Your task to perform on an android device: Open Yahoo.com Image 0: 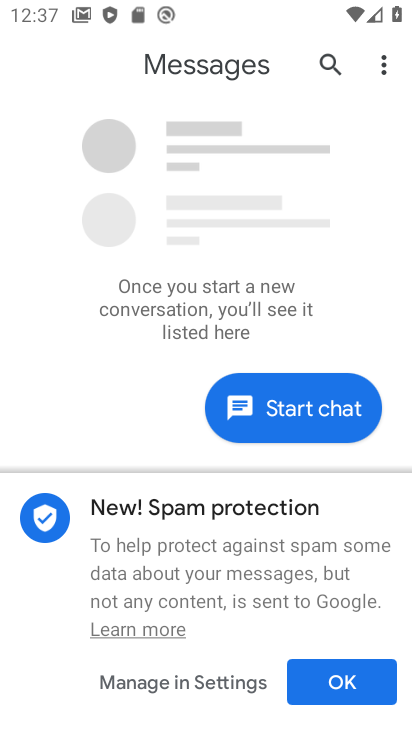
Step 0: press home button
Your task to perform on an android device: Open Yahoo.com Image 1: 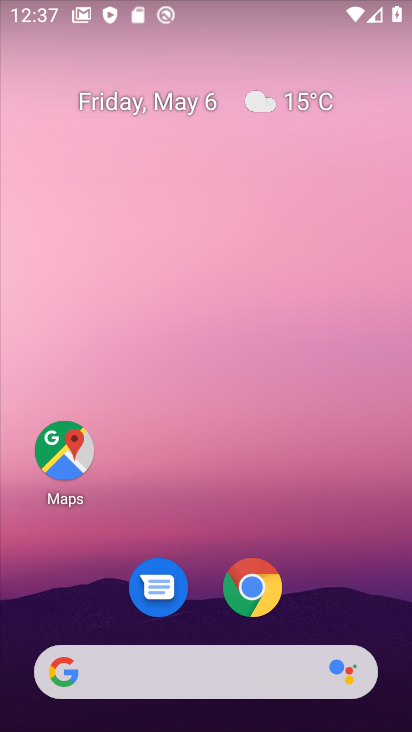
Step 1: click (245, 586)
Your task to perform on an android device: Open Yahoo.com Image 2: 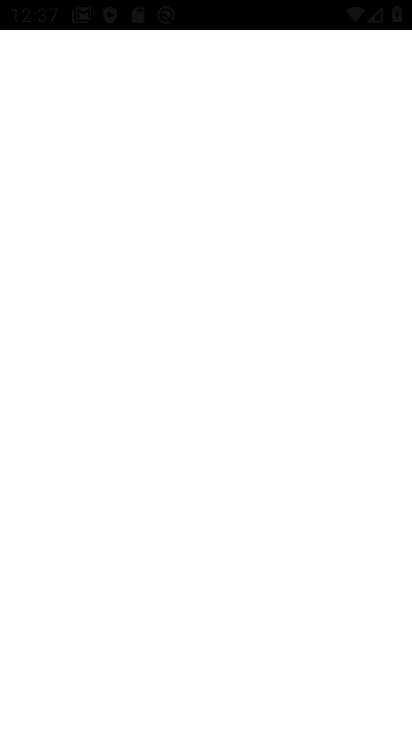
Step 2: click (249, 615)
Your task to perform on an android device: Open Yahoo.com Image 3: 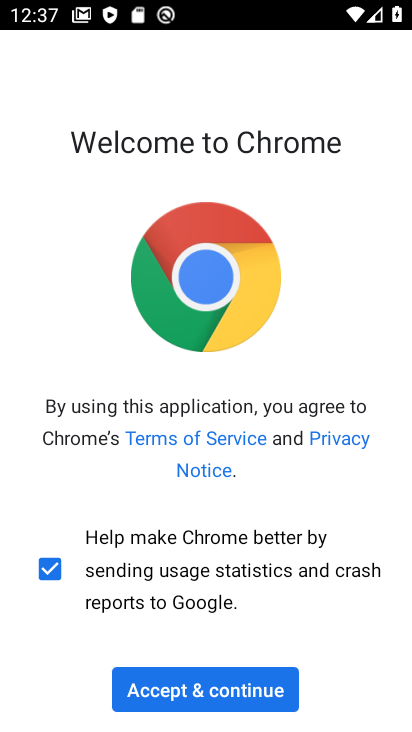
Step 3: click (170, 695)
Your task to perform on an android device: Open Yahoo.com Image 4: 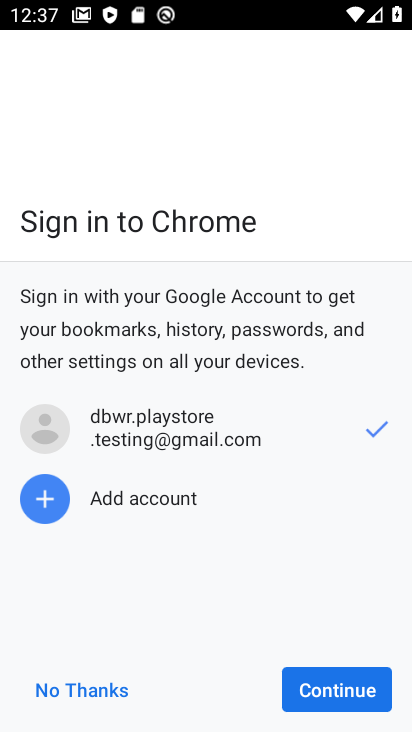
Step 4: click (325, 680)
Your task to perform on an android device: Open Yahoo.com Image 5: 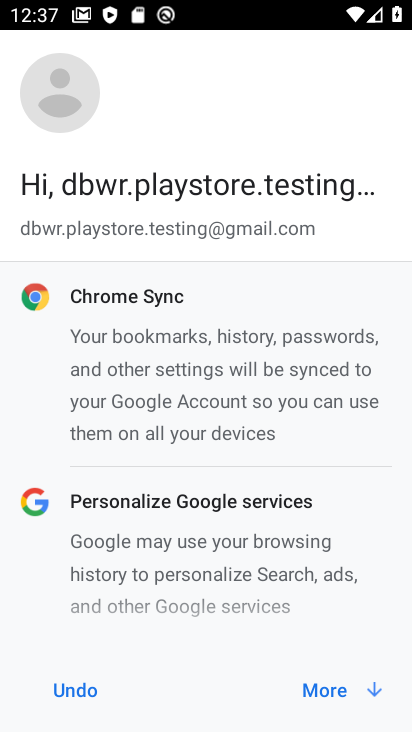
Step 5: click (326, 683)
Your task to perform on an android device: Open Yahoo.com Image 6: 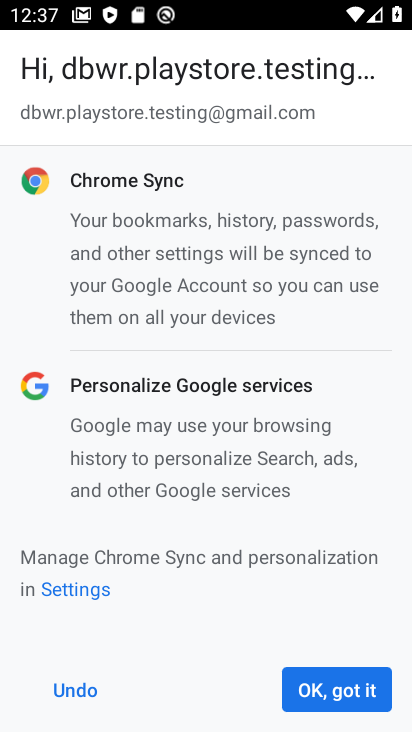
Step 6: click (326, 683)
Your task to perform on an android device: Open Yahoo.com Image 7: 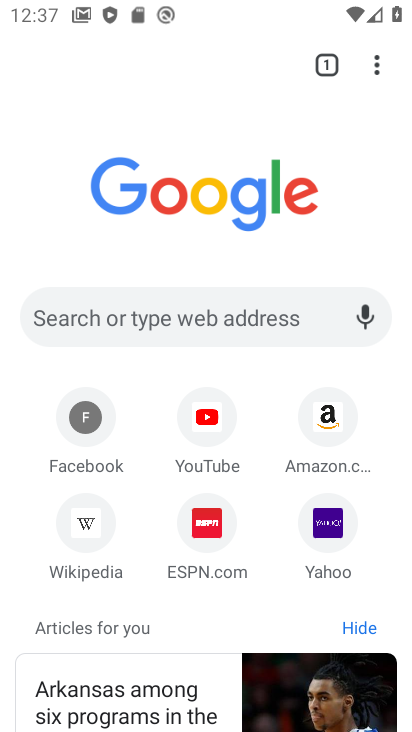
Step 7: click (346, 533)
Your task to perform on an android device: Open Yahoo.com Image 8: 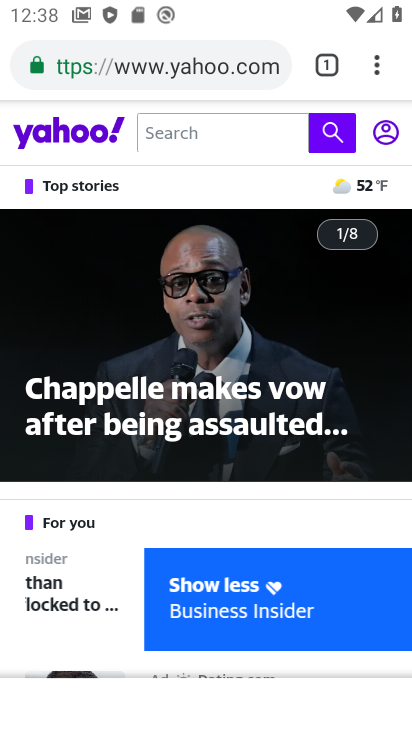
Step 8: task complete